Your task to perform on an android device: turn off notifications in google photos Image 0: 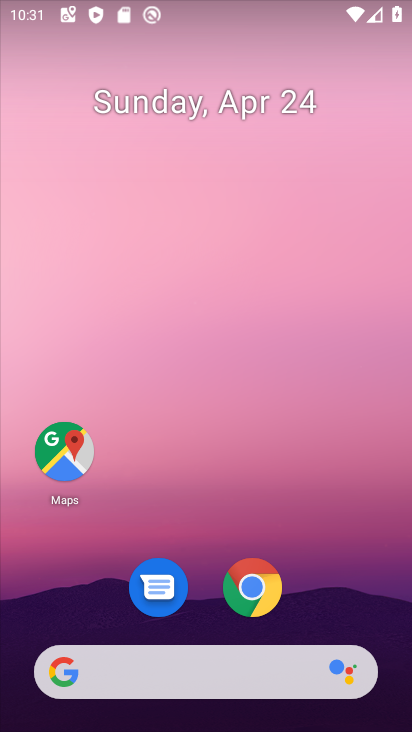
Step 0: drag from (354, 544) to (349, 87)
Your task to perform on an android device: turn off notifications in google photos Image 1: 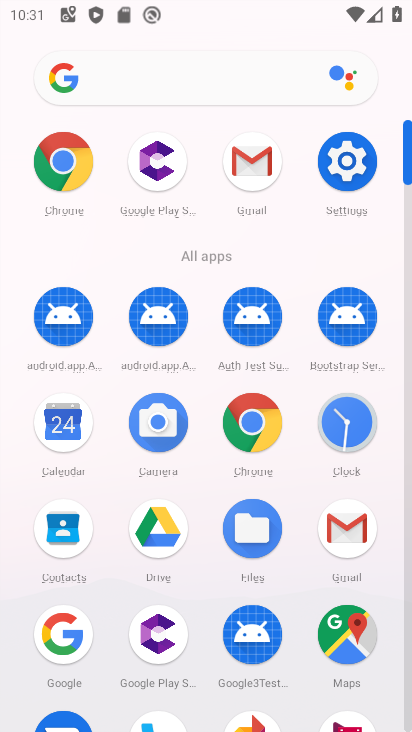
Step 1: drag from (302, 588) to (295, 357)
Your task to perform on an android device: turn off notifications in google photos Image 2: 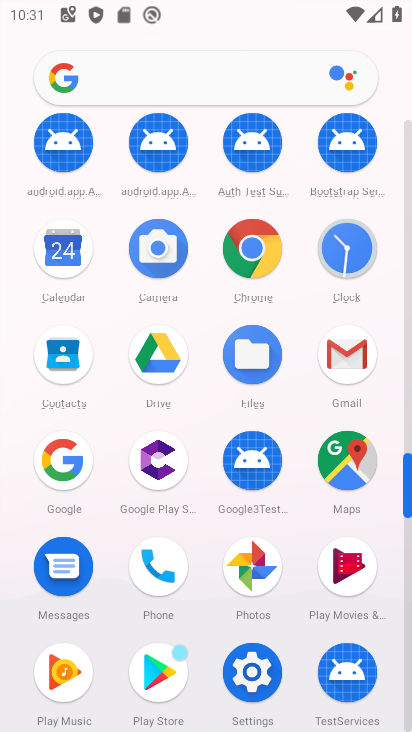
Step 2: click (244, 564)
Your task to perform on an android device: turn off notifications in google photos Image 3: 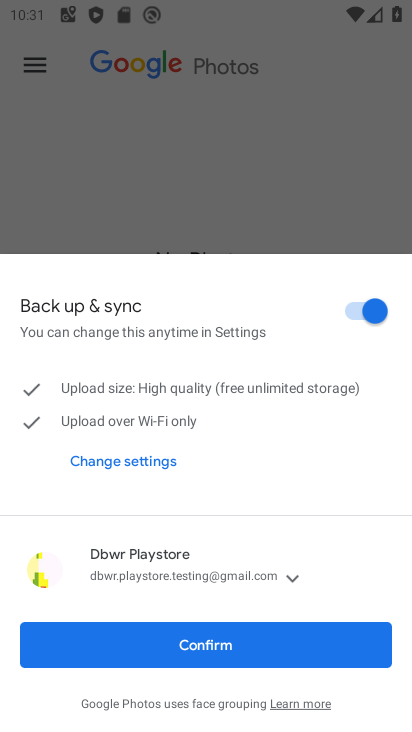
Step 3: click (247, 645)
Your task to perform on an android device: turn off notifications in google photos Image 4: 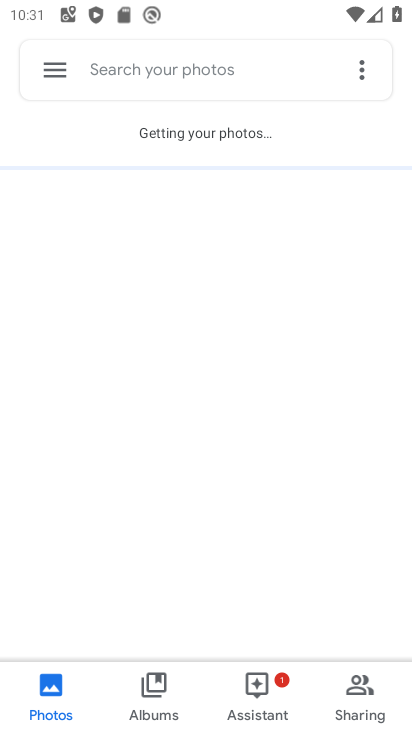
Step 4: click (64, 75)
Your task to perform on an android device: turn off notifications in google photos Image 5: 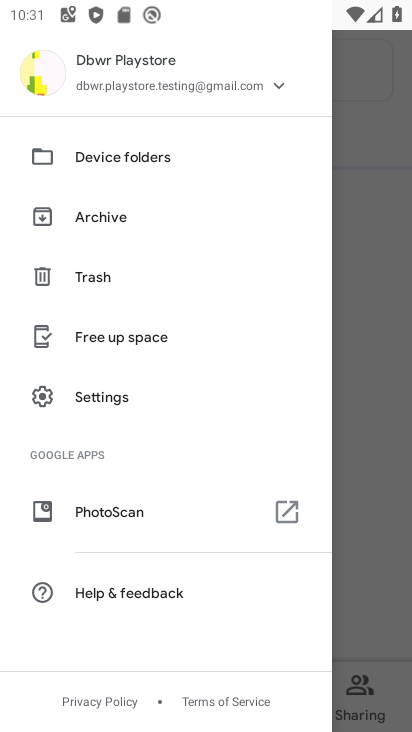
Step 5: click (128, 393)
Your task to perform on an android device: turn off notifications in google photos Image 6: 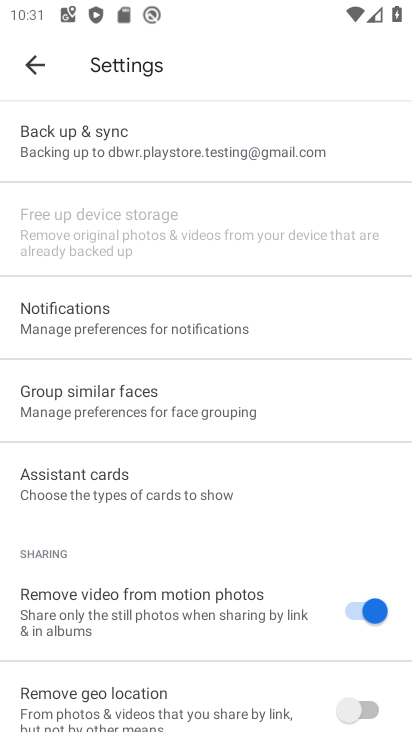
Step 6: click (147, 320)
Your task to perform on an android device: turn off notifications in google photos Image 7: 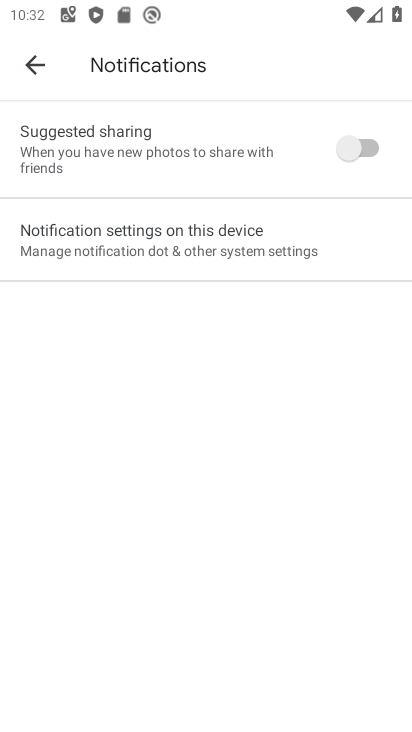
Step 7: click (158, 242)
Your task to perform on an android device: turn off notifications in google photos Image 8: 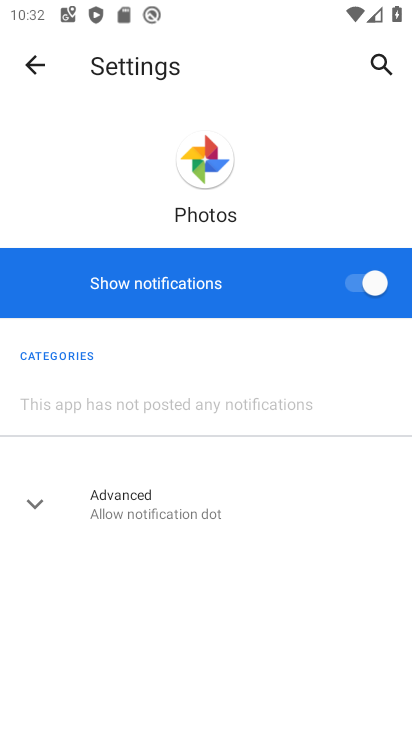
Step 8: click (360, 274)
Your task to perform on an android device: turn off notifications in google photos Image 9: 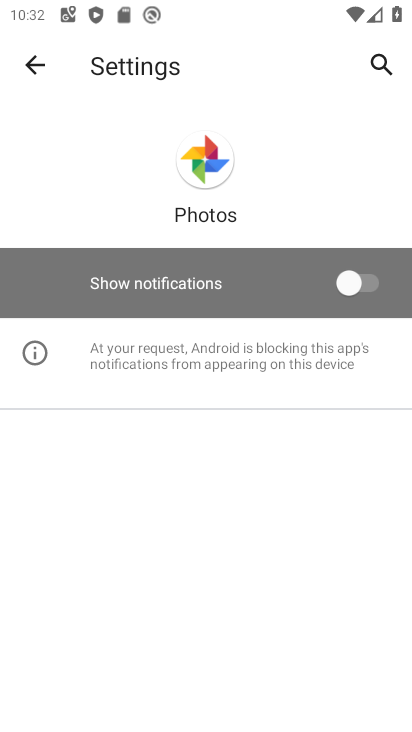
Step 9: task complete